Your task to perform on an android device: turn off location Image 0: 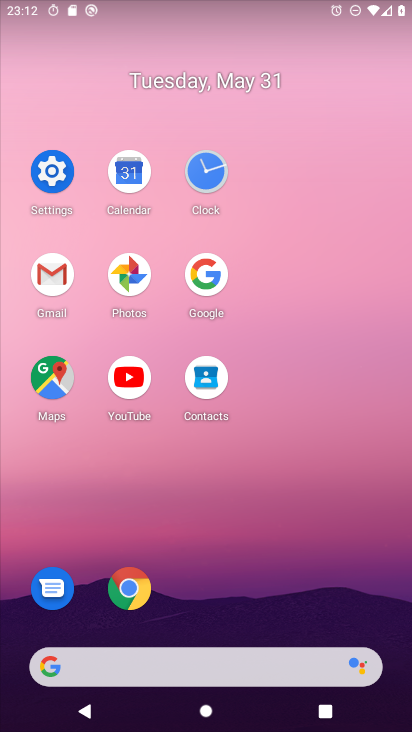
Step 0: click (77, 180)
Your task to perform on an android device: turn off location Image 1: 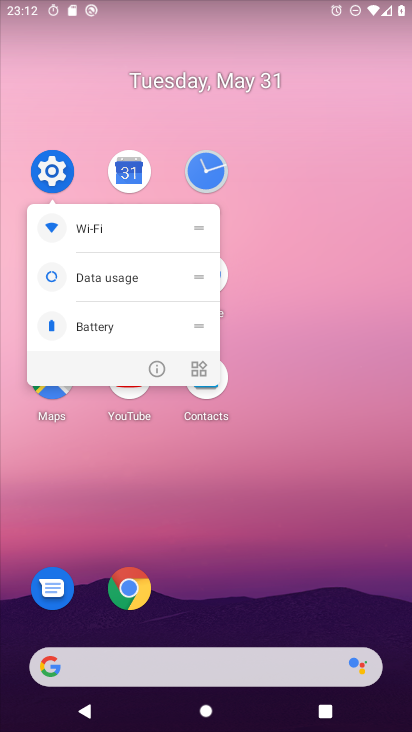
Step 1: click (44, 186)
Your task to perform on an android device: turn off location Image 2: 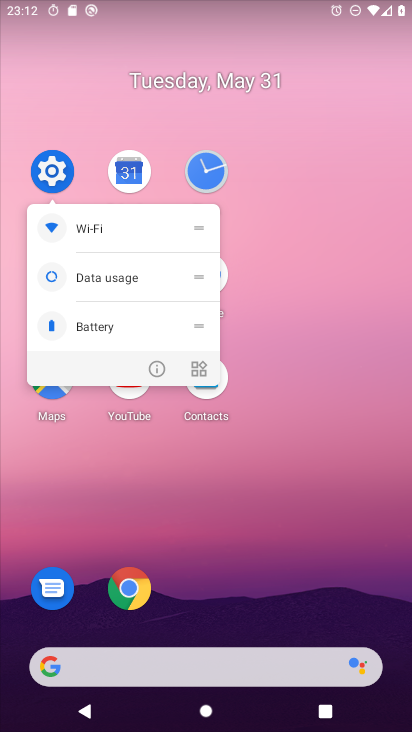
Step 2: click (49, 149)
Your task to perform on an android device: turn off location Image 3: 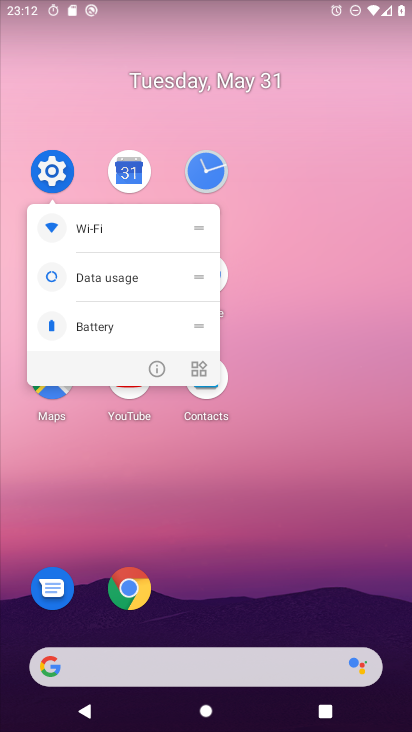
Step 3: click (54, 163)
Your task to perform on an android device: turn off location Image 4: 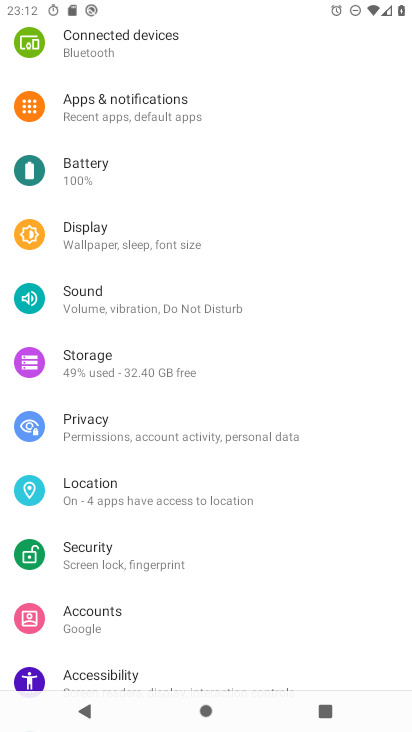
Step 4: click (195, 481)
Your task to perform on an android device: turn off location Image 5: 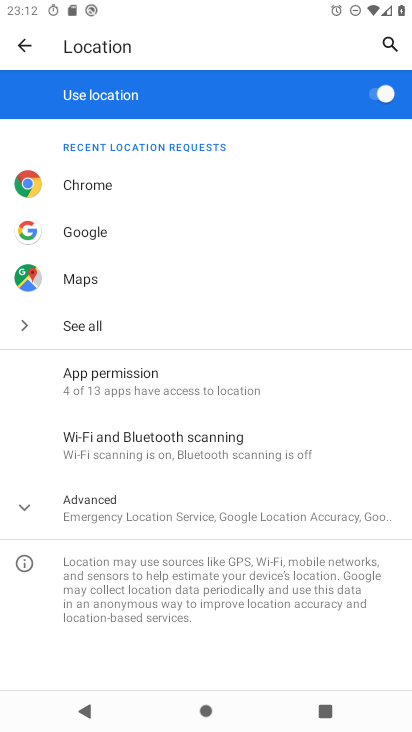
Step 5: click (195, 520)
Your task to perform on an android device: turn off location Image 6: 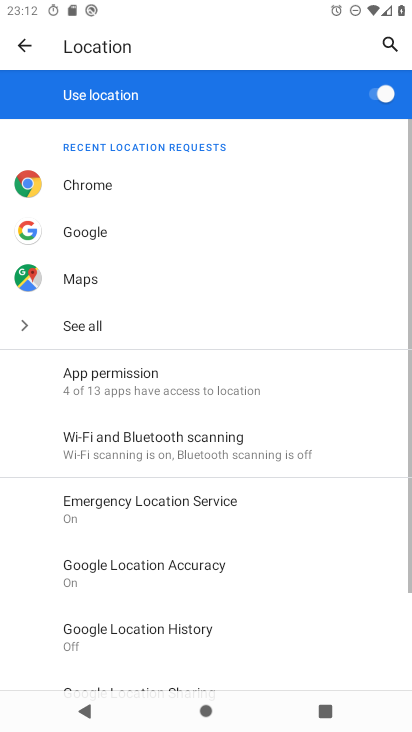
Step 6: click (384, 91)
Your task to perform on an android device: turn off location Image 7: 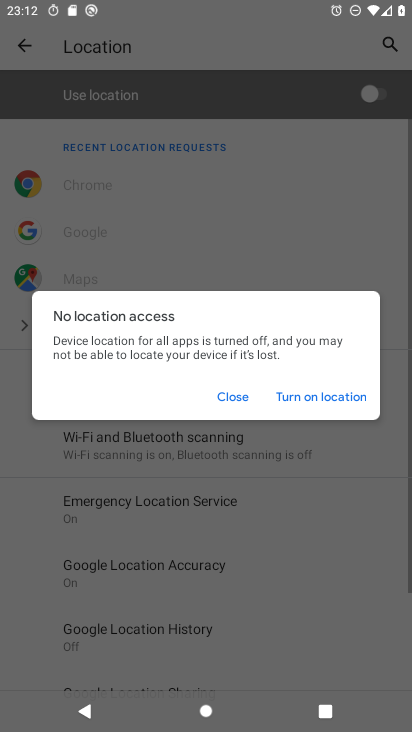
Step 7: task complete